Your task to perform on an android device: Go to Google Image 0: 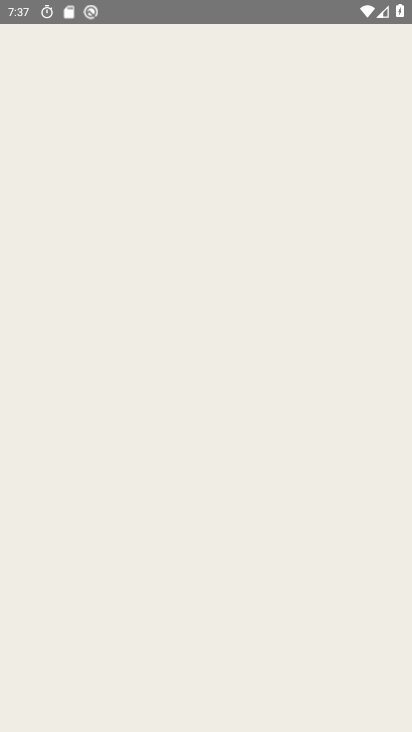
Step 0: drag from (280, 314) to (289, 207)
Your task to perform on an android device: Go to Google Image 1: 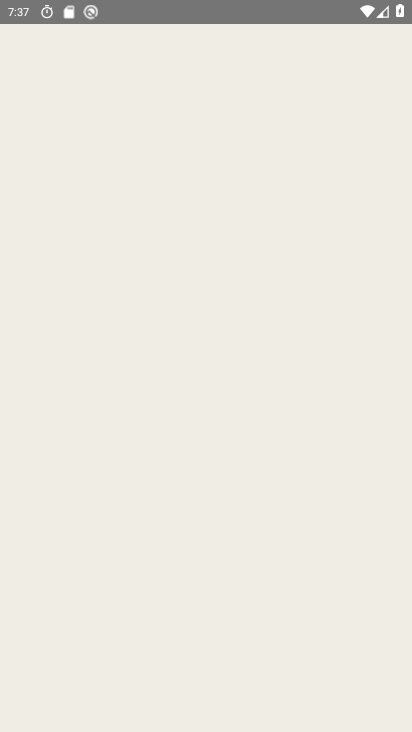
Step 1: press home button
Your task to perform on an android device: Go to Google Image 2: 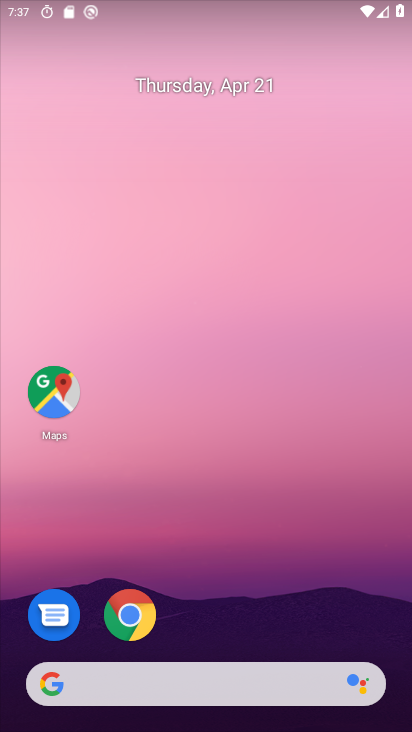
Step 2: drag from (181, 661) to (263, 175)
Your task to perform on an android device: Go to Google Image 3: 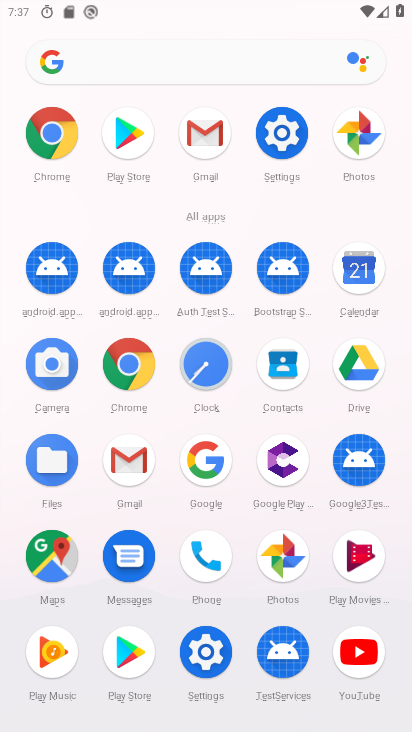
Step 3: click (207, 462)
Your task to perform on an android device: Go to Google Image 4: 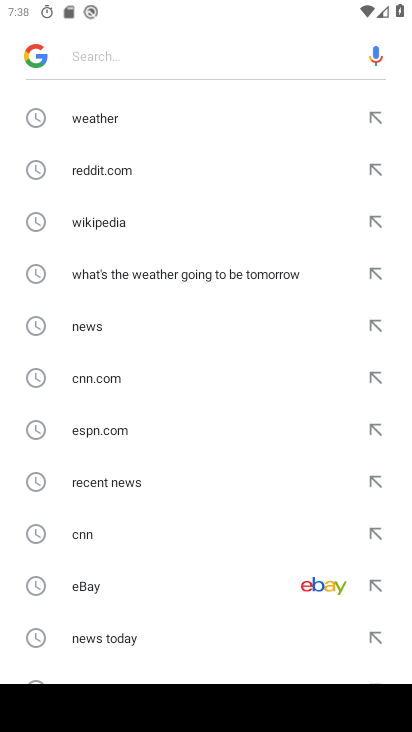
Step 4: task complete